Your task to perform on an android device: see sites visited before in the chrome app Image 0: 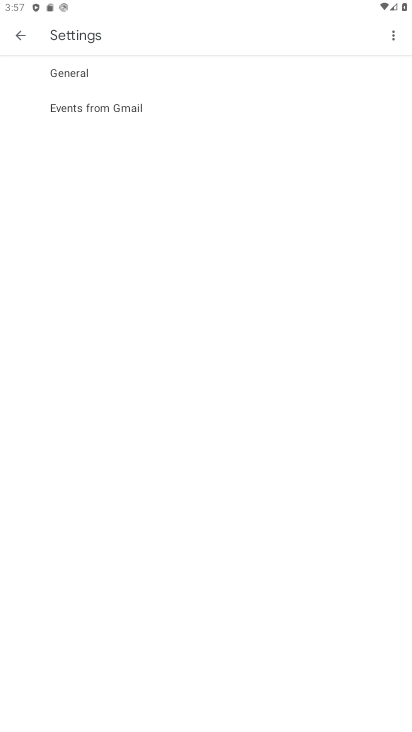
Step 0: press home button
Your task to perform on an android device: see sites visited before in the chrome app Image 1: 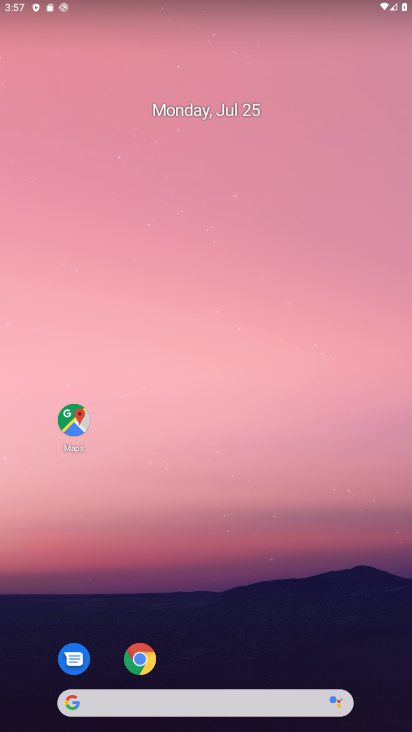
Step 1: click (142, 645)
Your task to perform on an android device: see sites visited before in the chrome app Image 2: 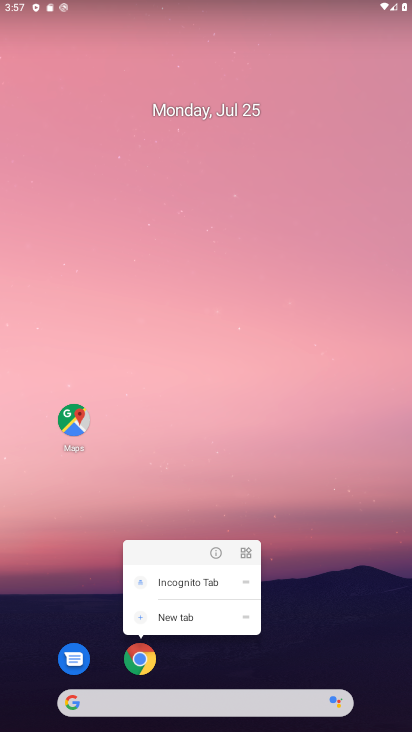
Step 2: click (142, 645)
Your task to perform on an android device: see sites visited before in the chrome app Image 3: 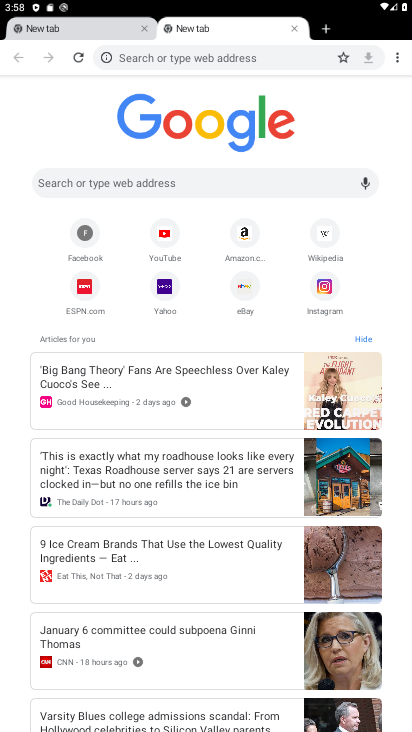
Step 3: click (402, 47)
Your task to perform on an android device: see sites visited before in the chrome app Image 4: 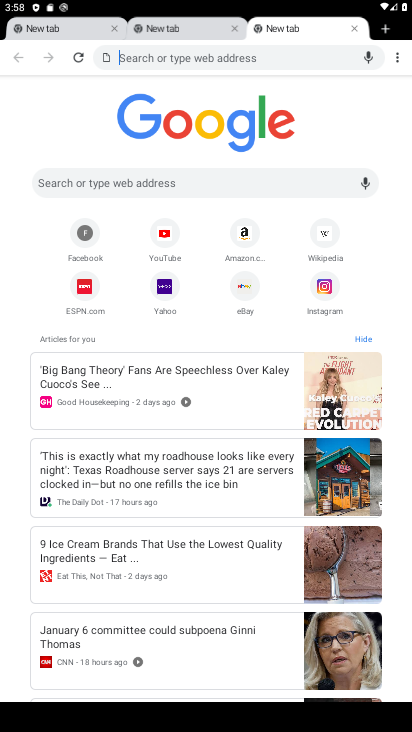
Step 4: task complete